Your task to perform on an android device: check google app version Image 0: 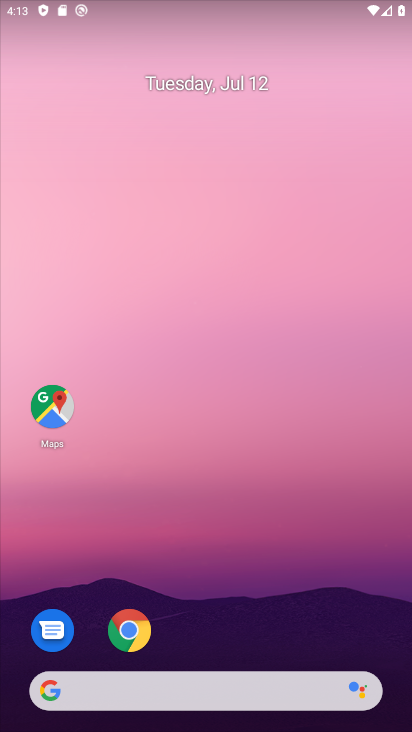
Step 0: drag from (212, 535) to (278, 88)
Your task to perform on an android device: check google app version Image 1: 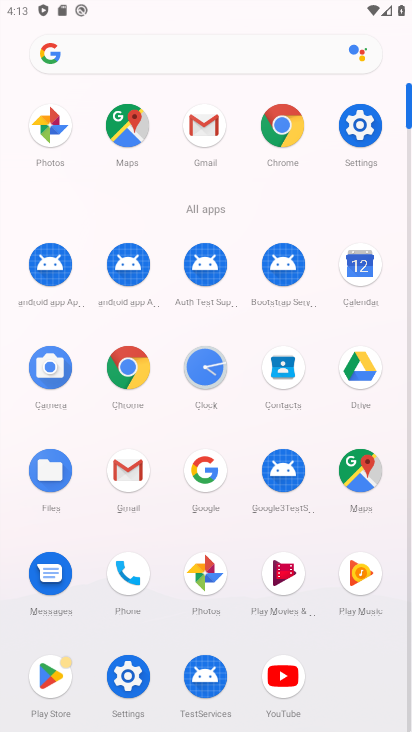
Step 1: click (127, 687)
Your task to perform on an android device: check google app version Image 2: 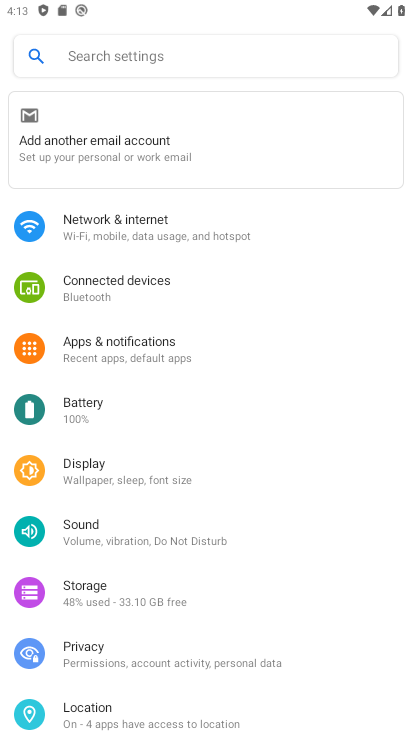
Step 2: click (138, 369)
Your task to perform on an android device: check google app version Image 3: 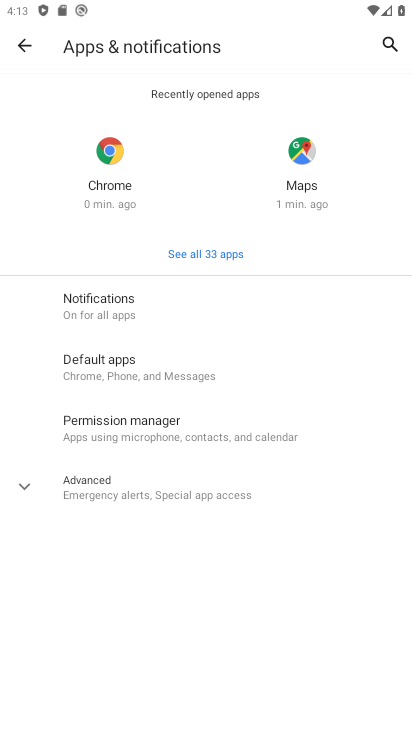
Step 3: click (181, 499)
Your task to perform on an android device: check google app version Image 4: 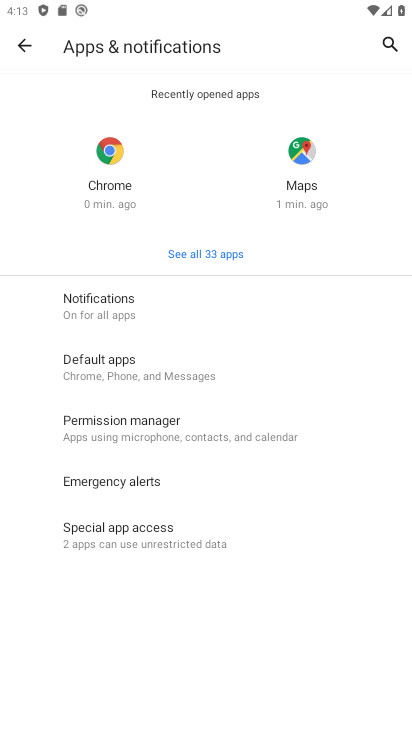
Step 4: click (223, 259)
Your task to perform on an android device: check google app version Image 5: 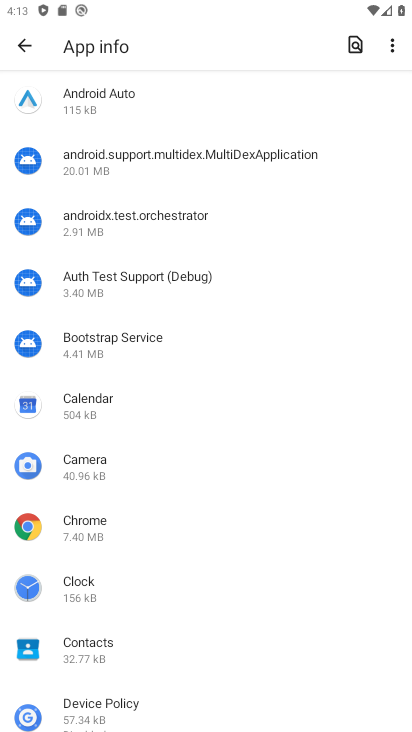
Step 5: drag from (138, 617) to (233, 105)
Your task to perform on an android device: check google app version Image 6: 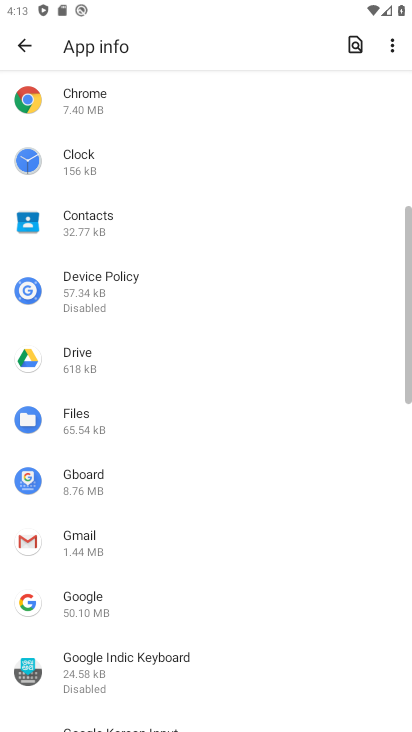
Step 6: click (129, 611)
Your task to perform on an android device: check google app version Image 7: 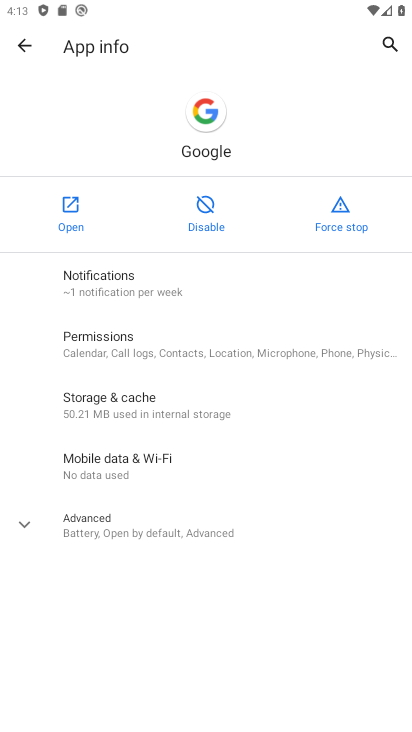
Step 7: click (211, 538)
Your task to perform on an android device: check google app version Image 8: 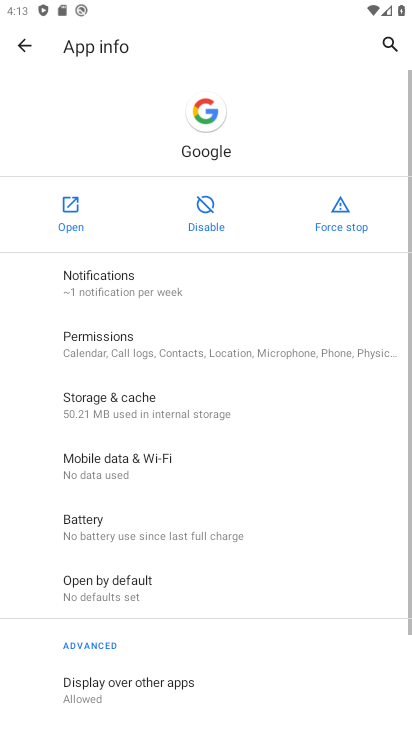
Step 8: task complete